Your task to perform on an android device: check battery use Image 0: 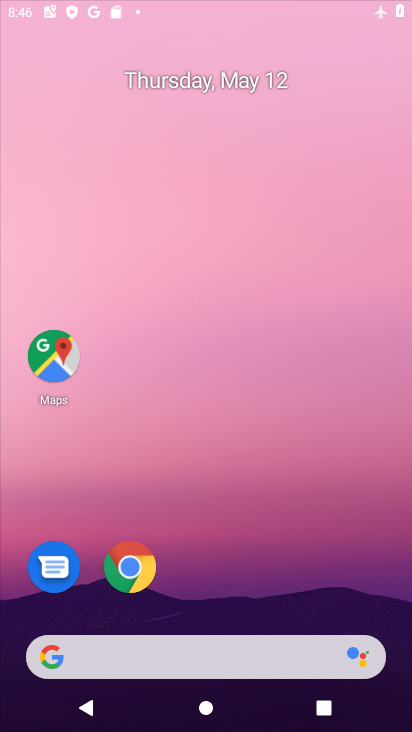
Step 0: drag from (242, 573) to (242, 200)
Your task to perform on an android device: check battery use Image 1: 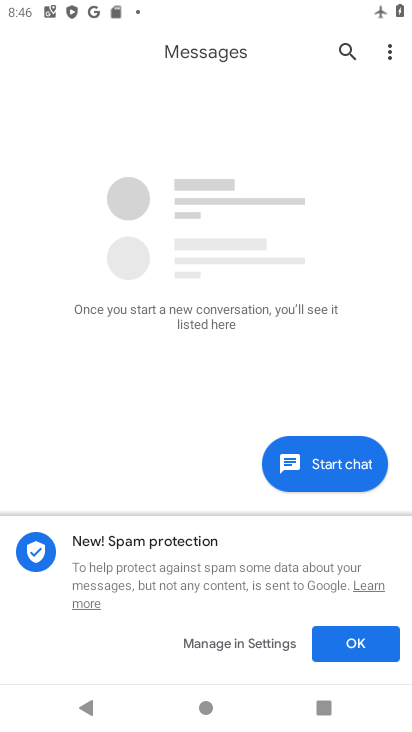
Step 1: press home button
Your task to perform on an android device: check battery use Image 2: 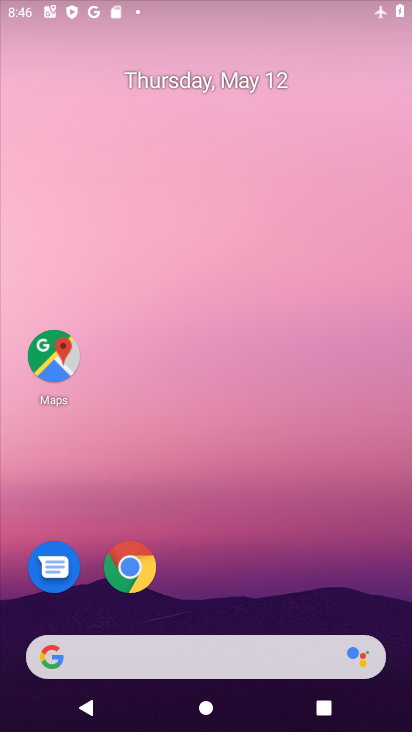
Step 2: drag from (217, 659) to (211, 279)
Your task to perform on an android device: check battery use Image 3: 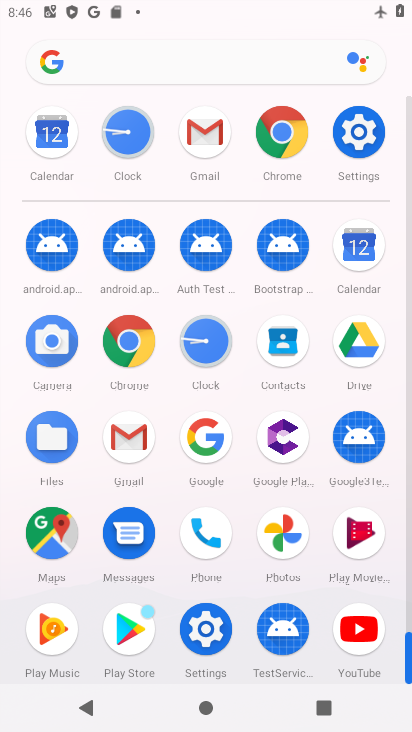
Step 3: click (356, 146)
Your task to perform on an android device: check battery use Image 4: 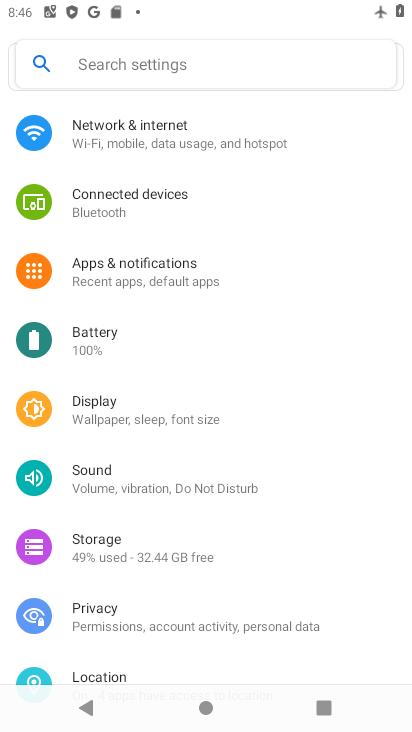
Step 4: click (182, 347)
Your task to perform on an android device: check battery use Image 5: 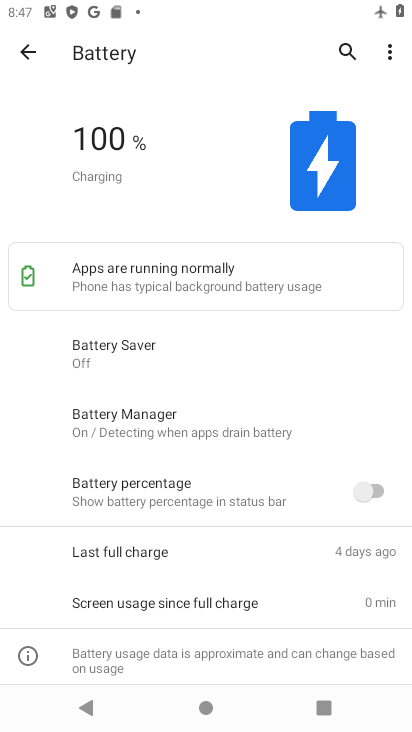
Step 5: task complete